Your task to perform on an android device: delete location history Image 0: 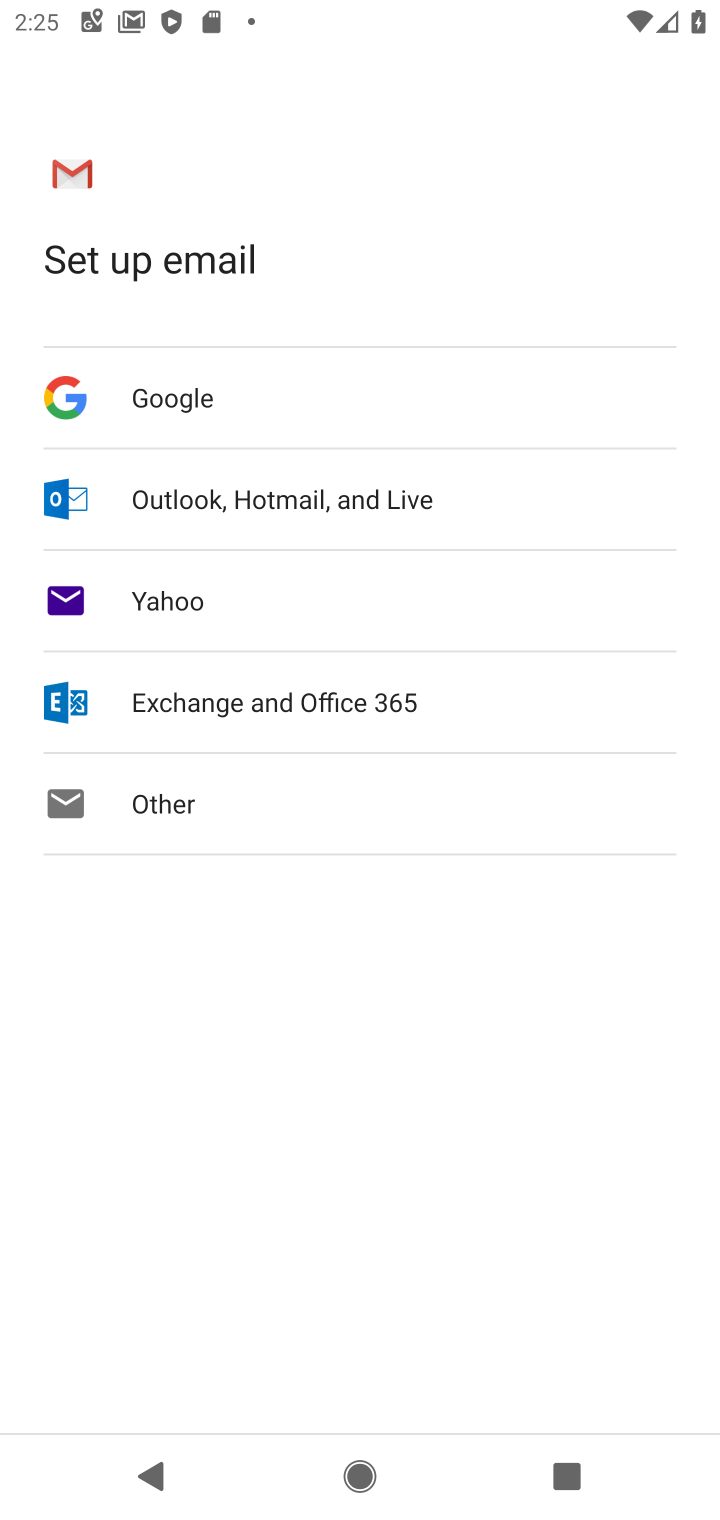
Step 0: press home button
Your task to perform on an android device: delete location history Image 1: 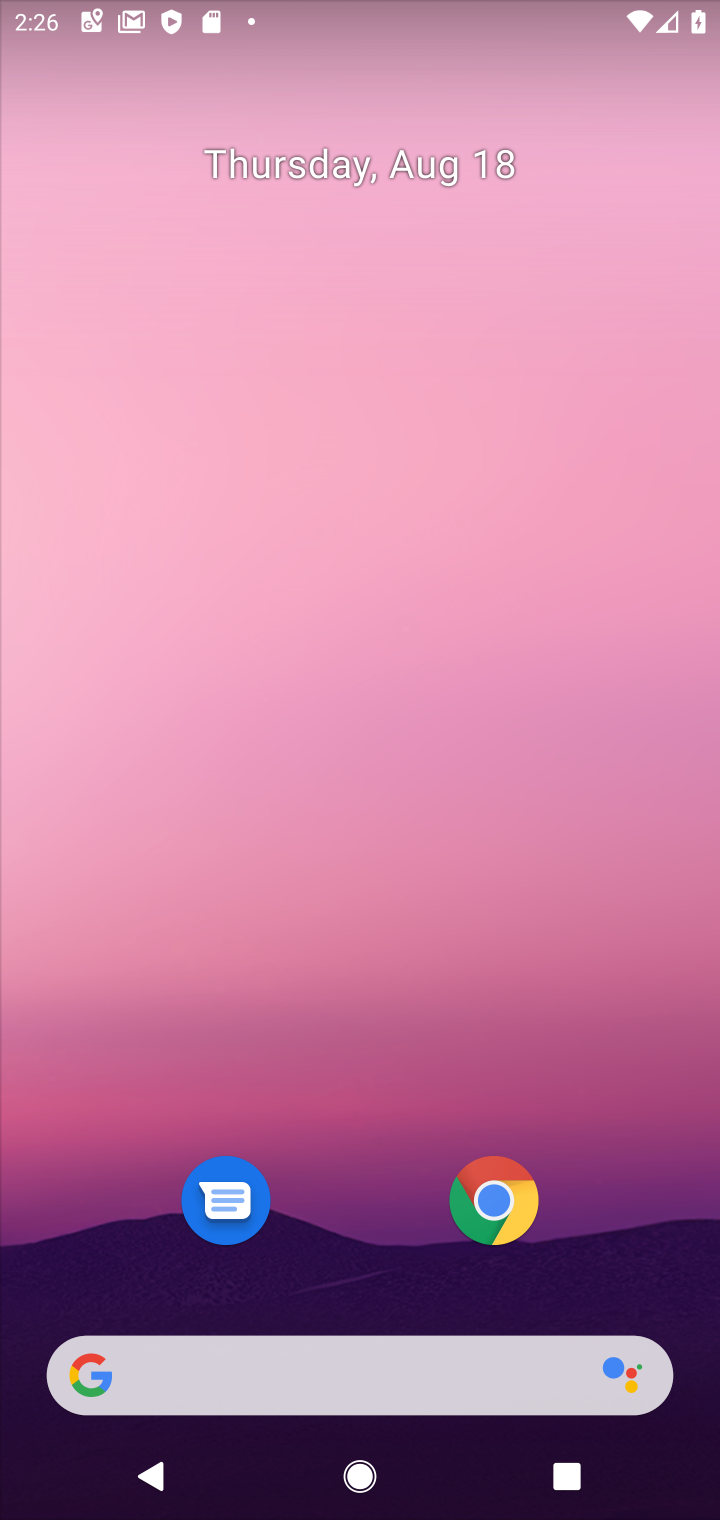
Step 1: drag from (424, 1180) to (518, 35)
Your task to perform on an android device: delete location history Image 2: 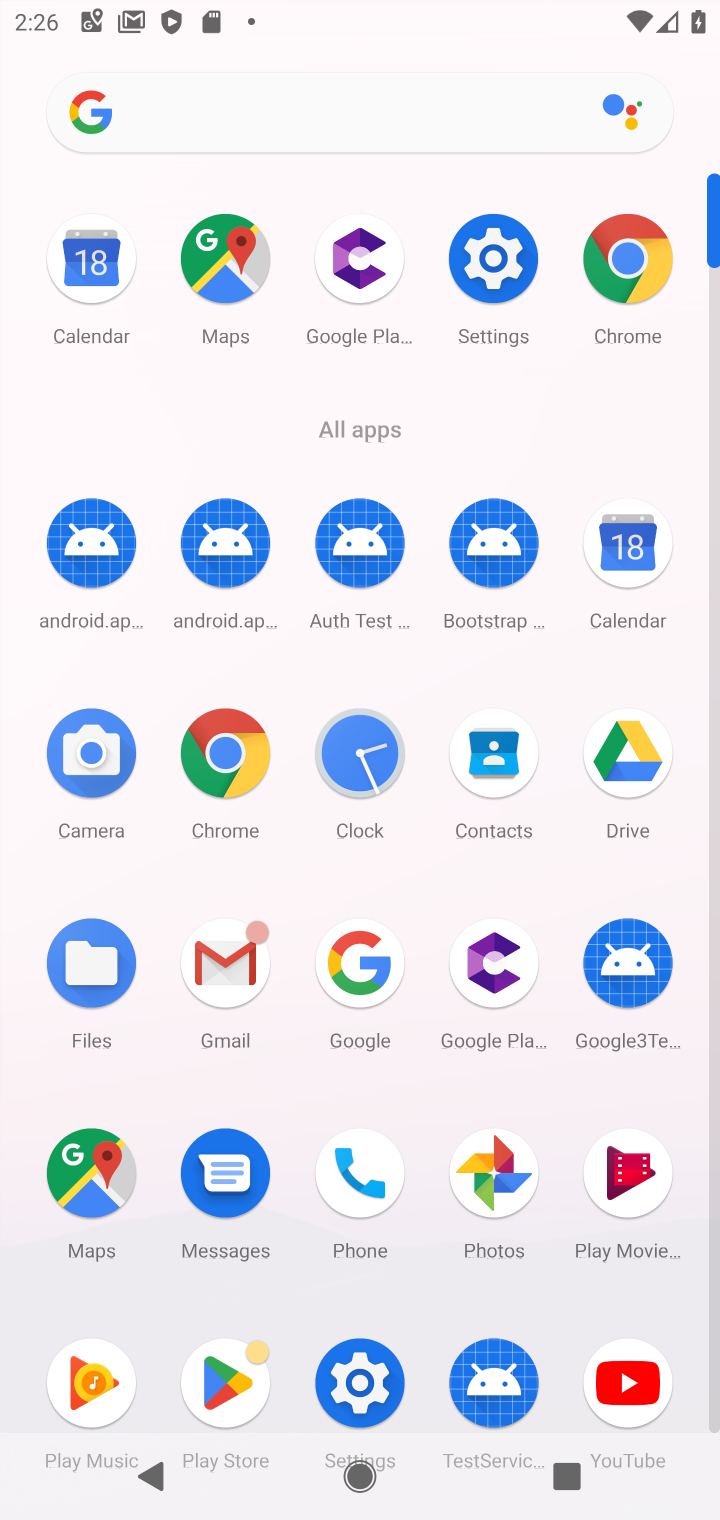
Step 2: click (92, 1178)
Your task to perform on an android device: delete location history Image 3: 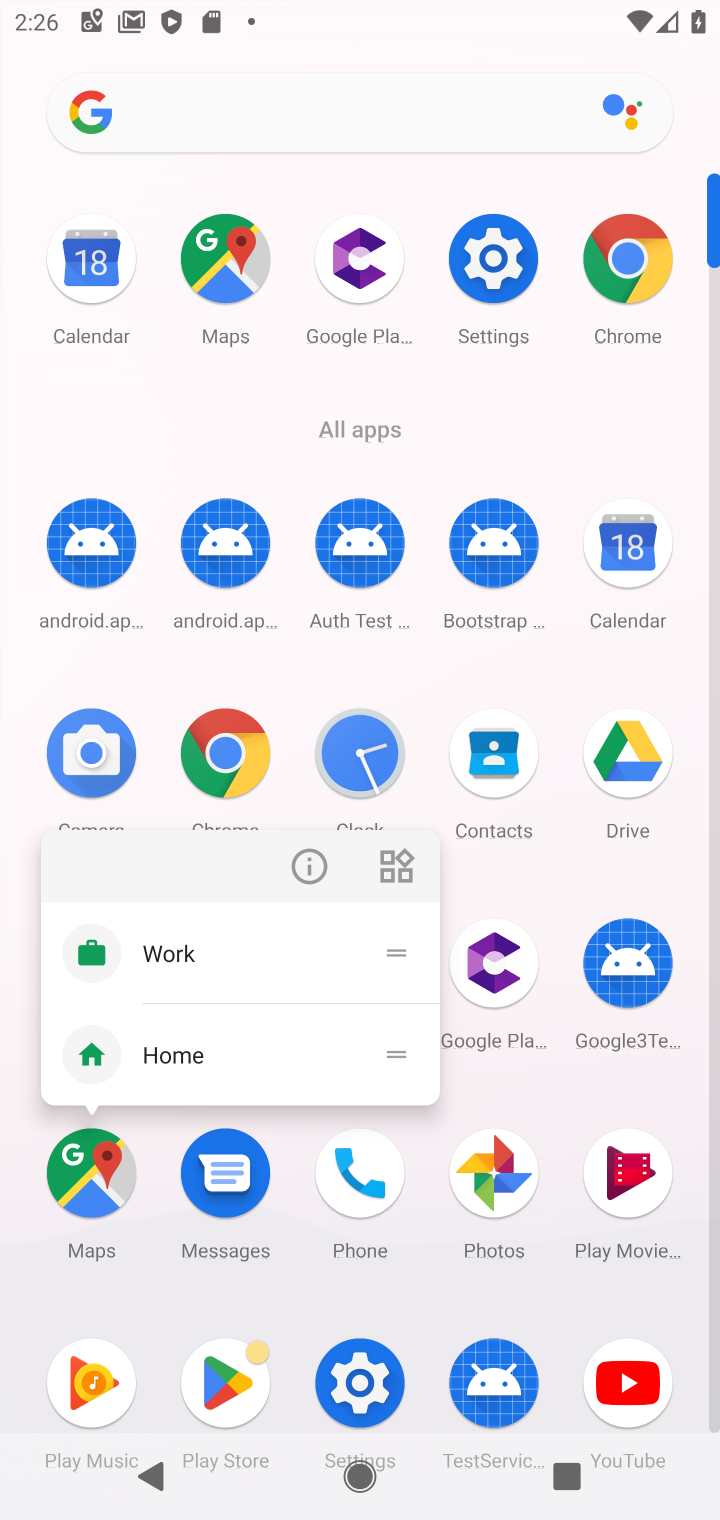
Step 3: click (92, 1178)
Your task to perform on an android device: delete location history Image 4: 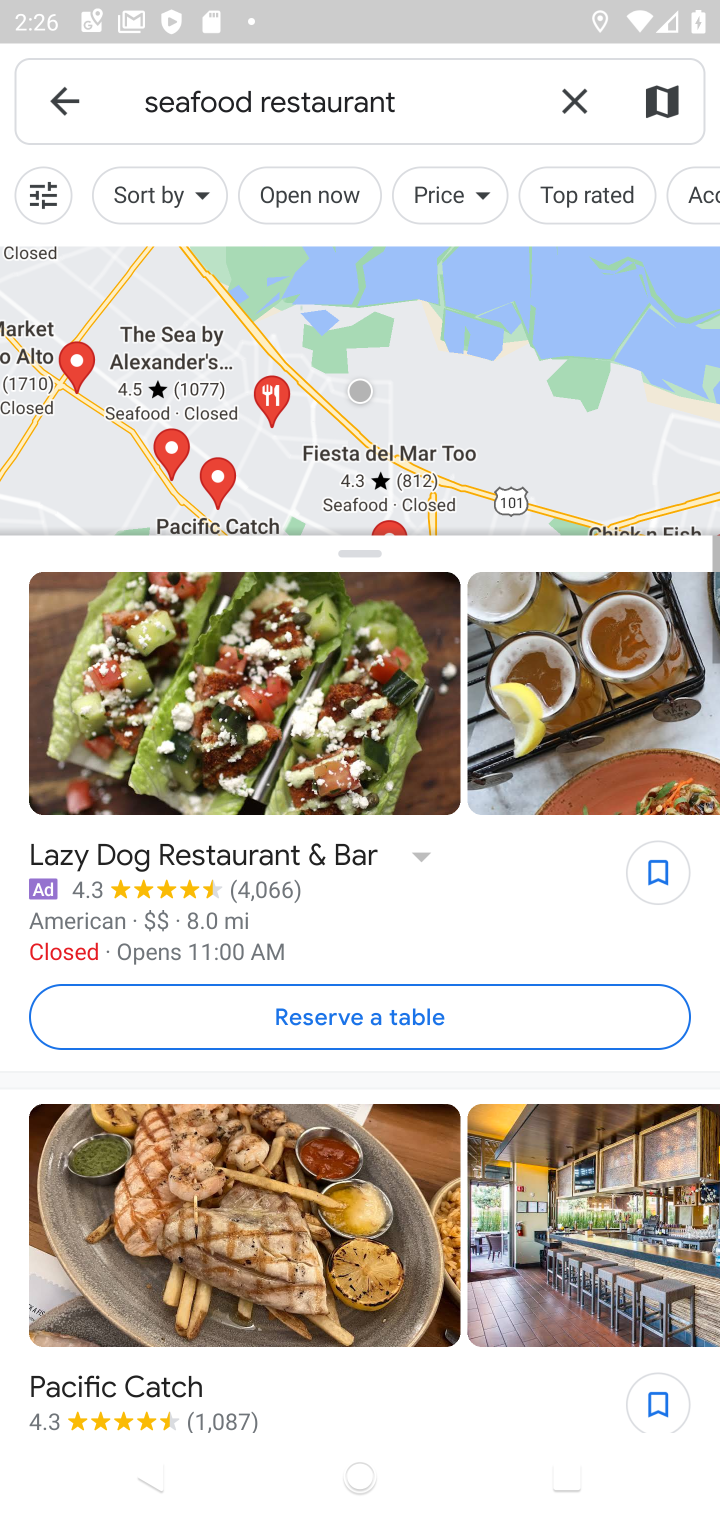
Step 4: click (596, 86)
Your task to perform on an android device: delete location history Image 5: 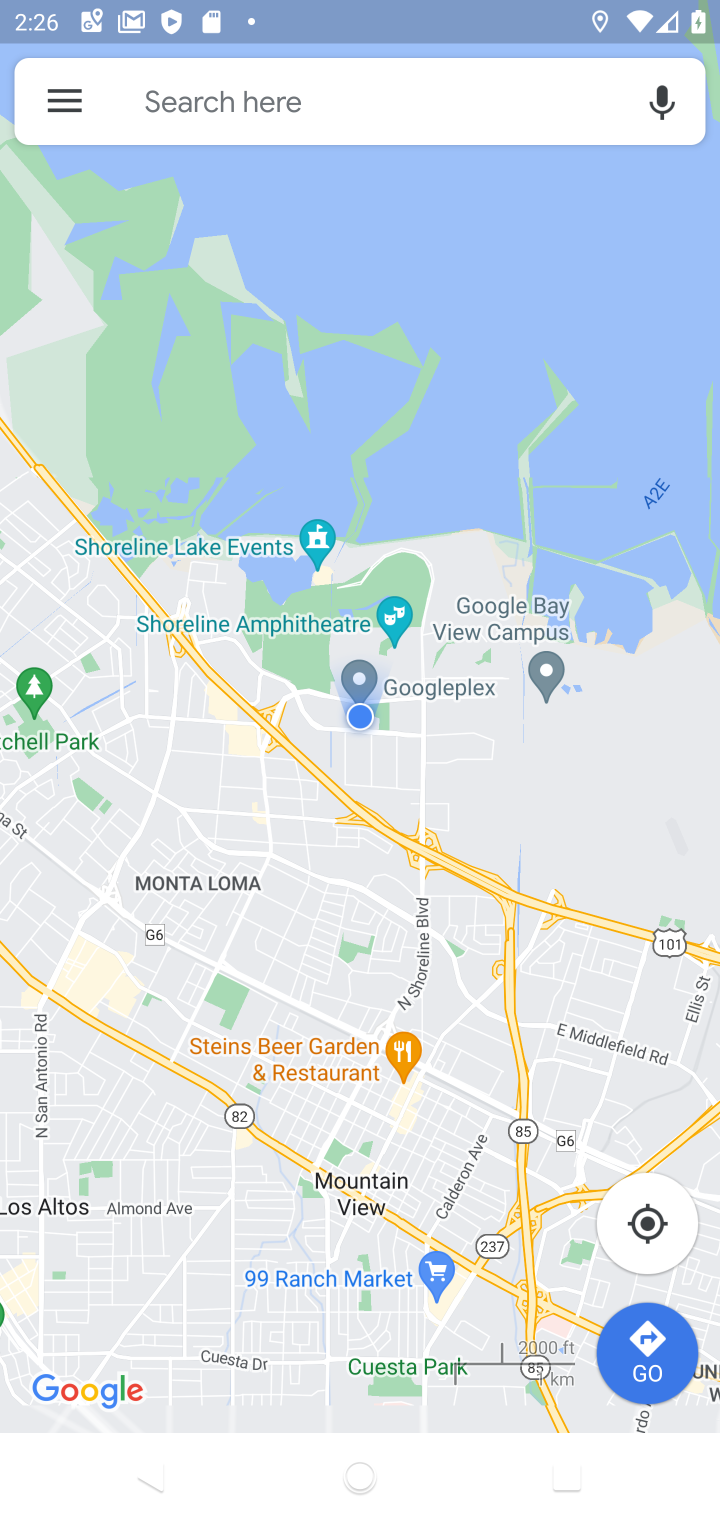
Step 5: click (75, 94)
Your task to perform on an android device: delete location history Image 6: 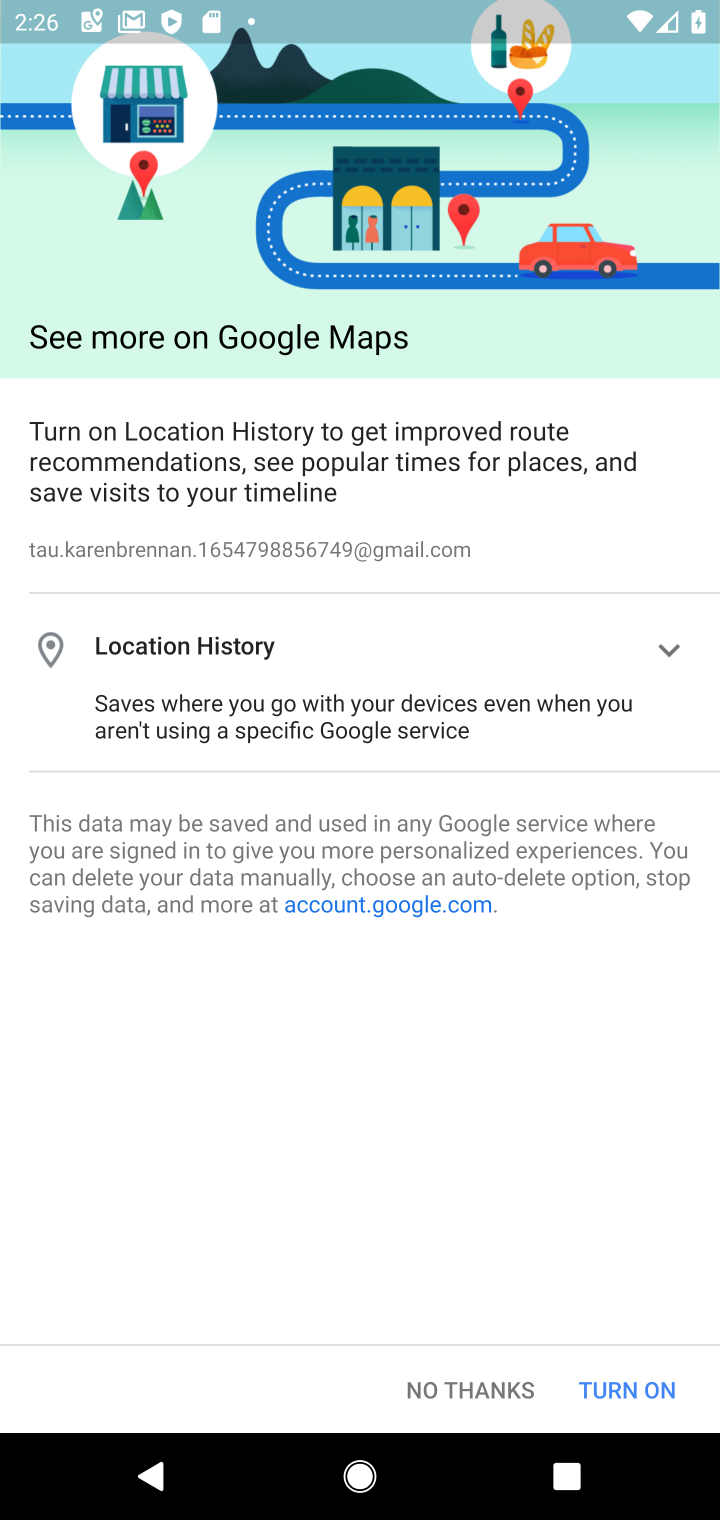
Step 6: click (644, 1364)
Your task to perform on an android device: delete location history Image 7: 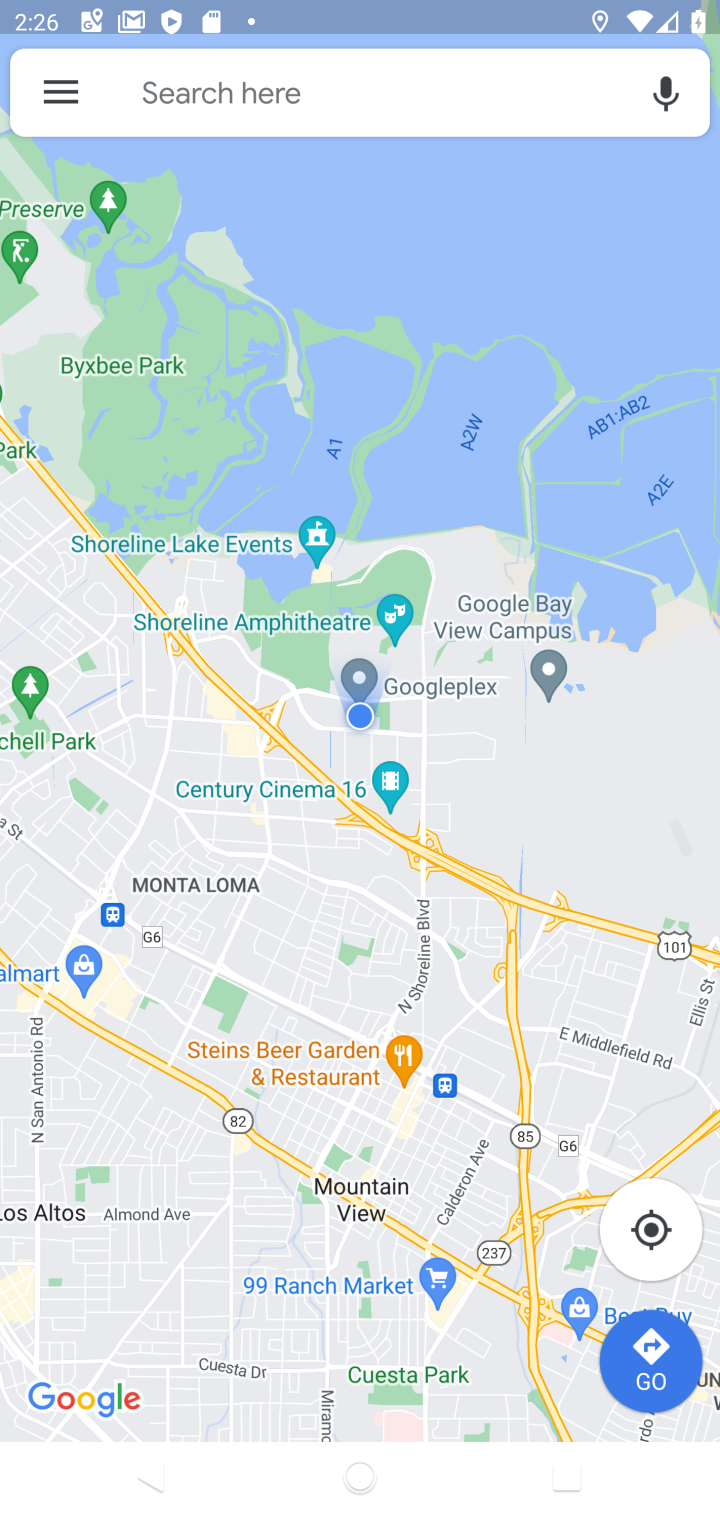
Step 7: click (644, 1364)
Your task to perform on an android device: delete location history Image 8: 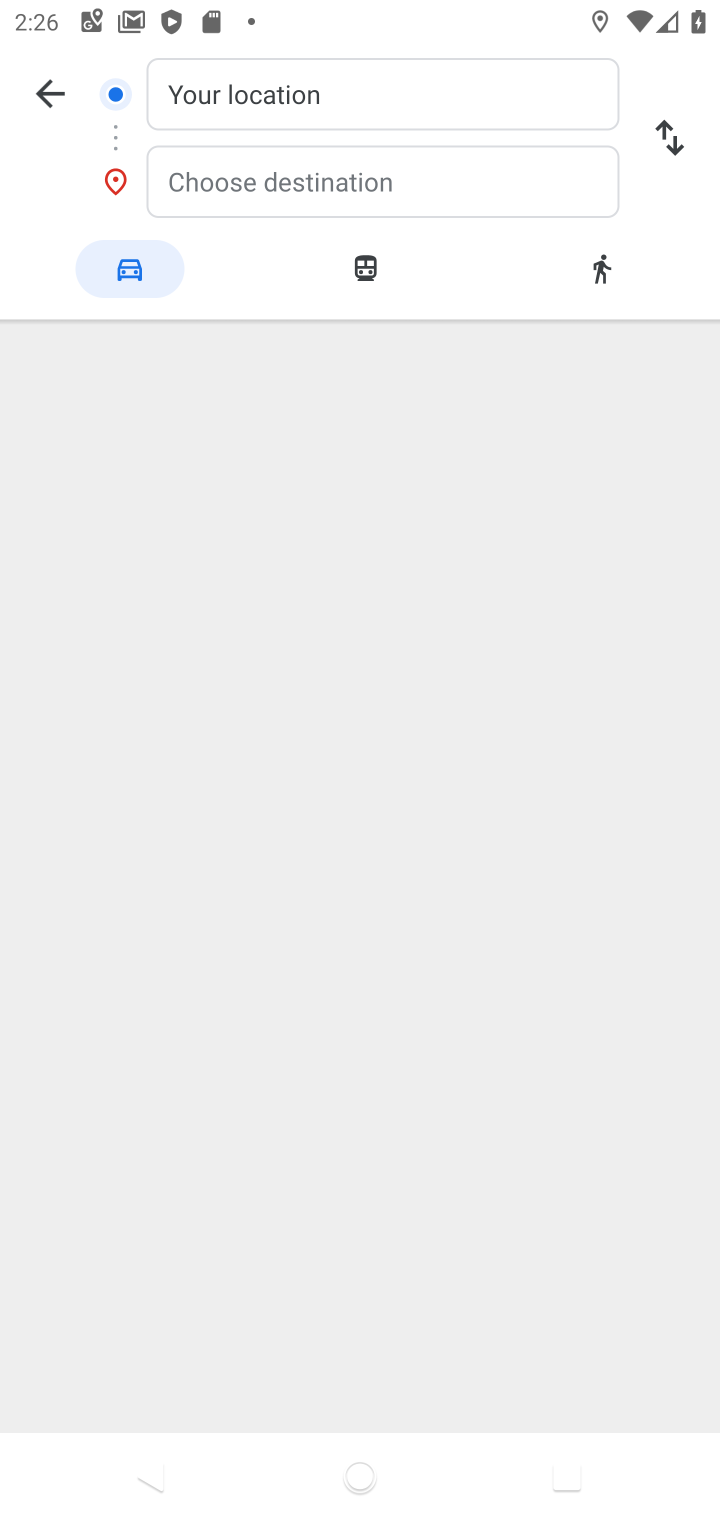
Step 8: click (58, 86)
Your task to perform on an android device: delete location history Image 9: 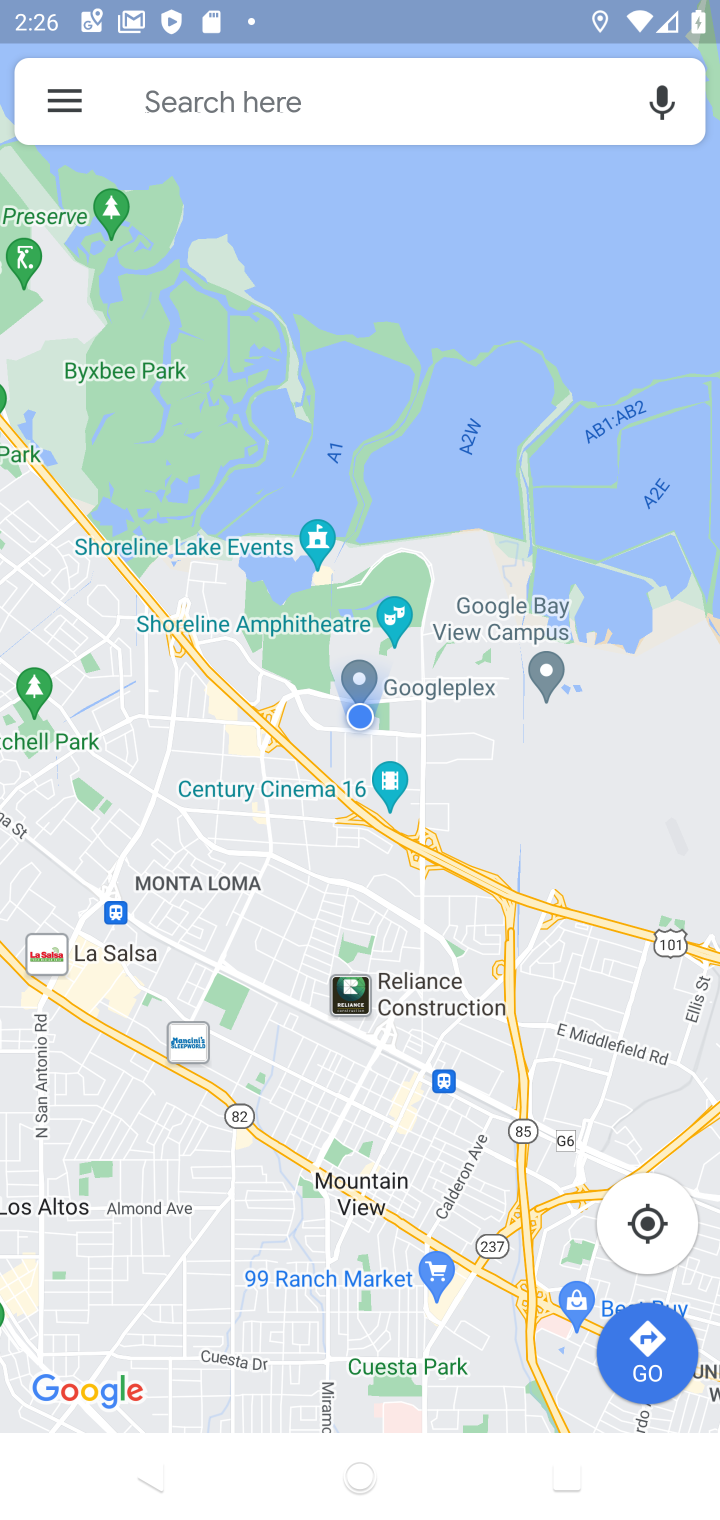
Step 9: click (70, 104)
Your task to perform on an android device: delete location history Image 10: 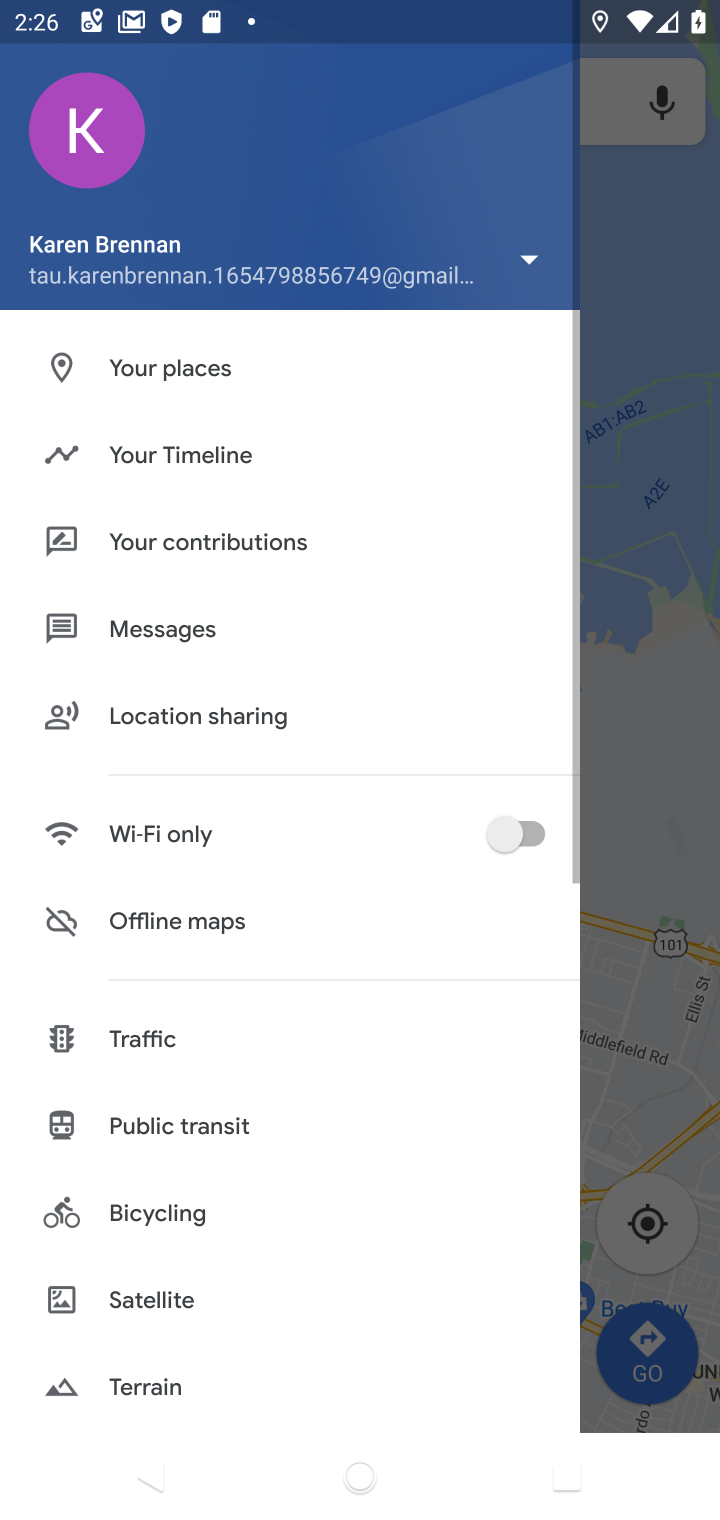
Step 10: click (133, 436)
Your task to perform on an android device: delete location history Image 11: 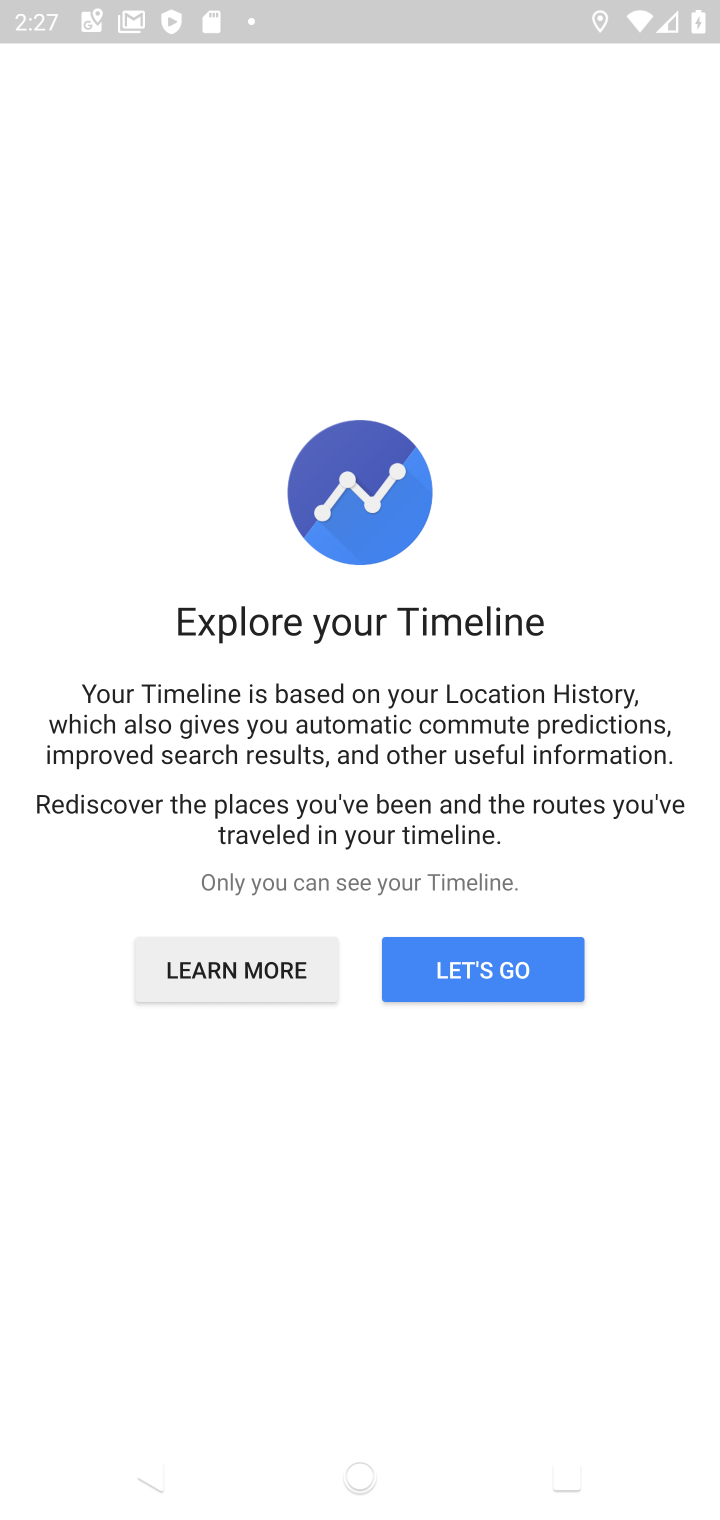
Step 11: click (527, 965)
Your task to perform on an android device: delete location history Image 12: 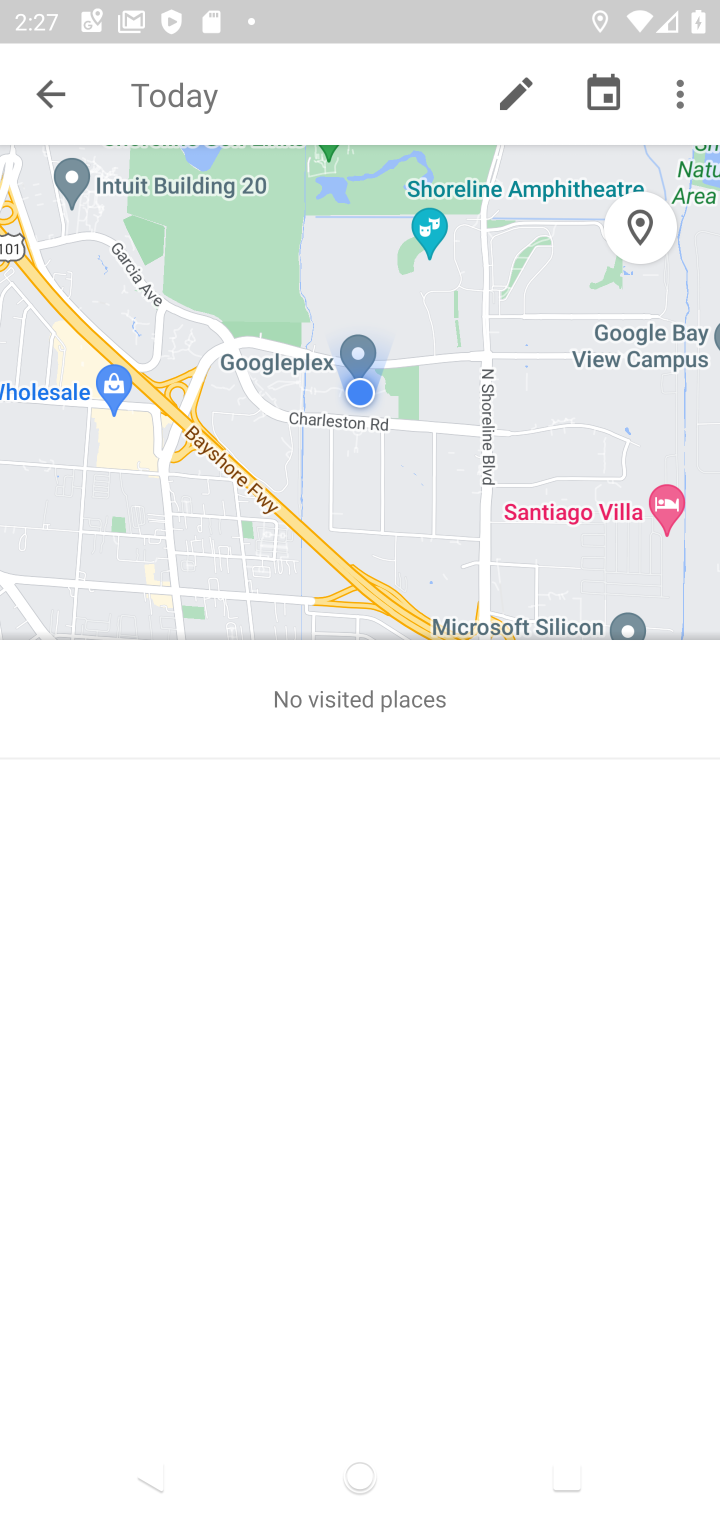
Step 12: click (676, 78)
Your task to perform on an android device: delete location history Image 13: 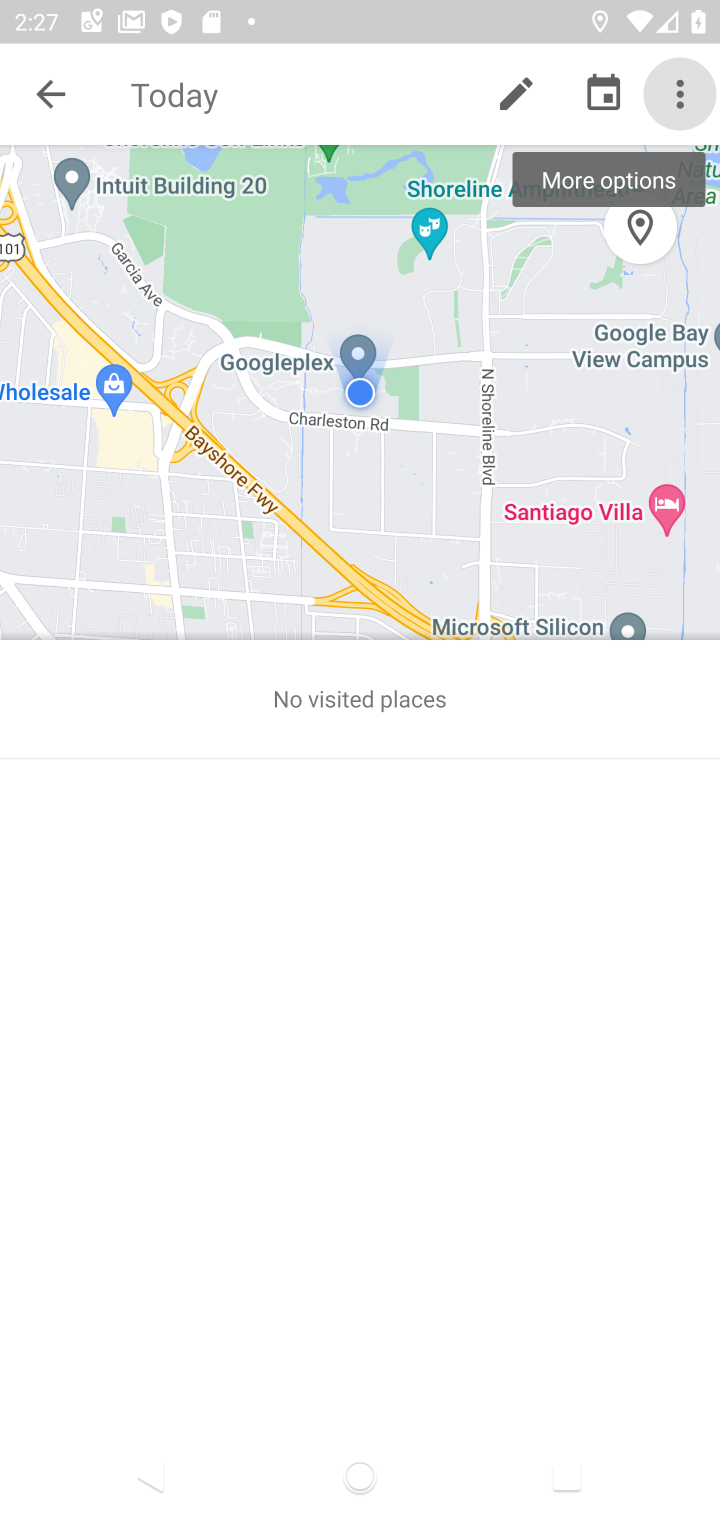
Step 13: click (676, 78)
Your task to perform on an android device: delete location history Image 14: 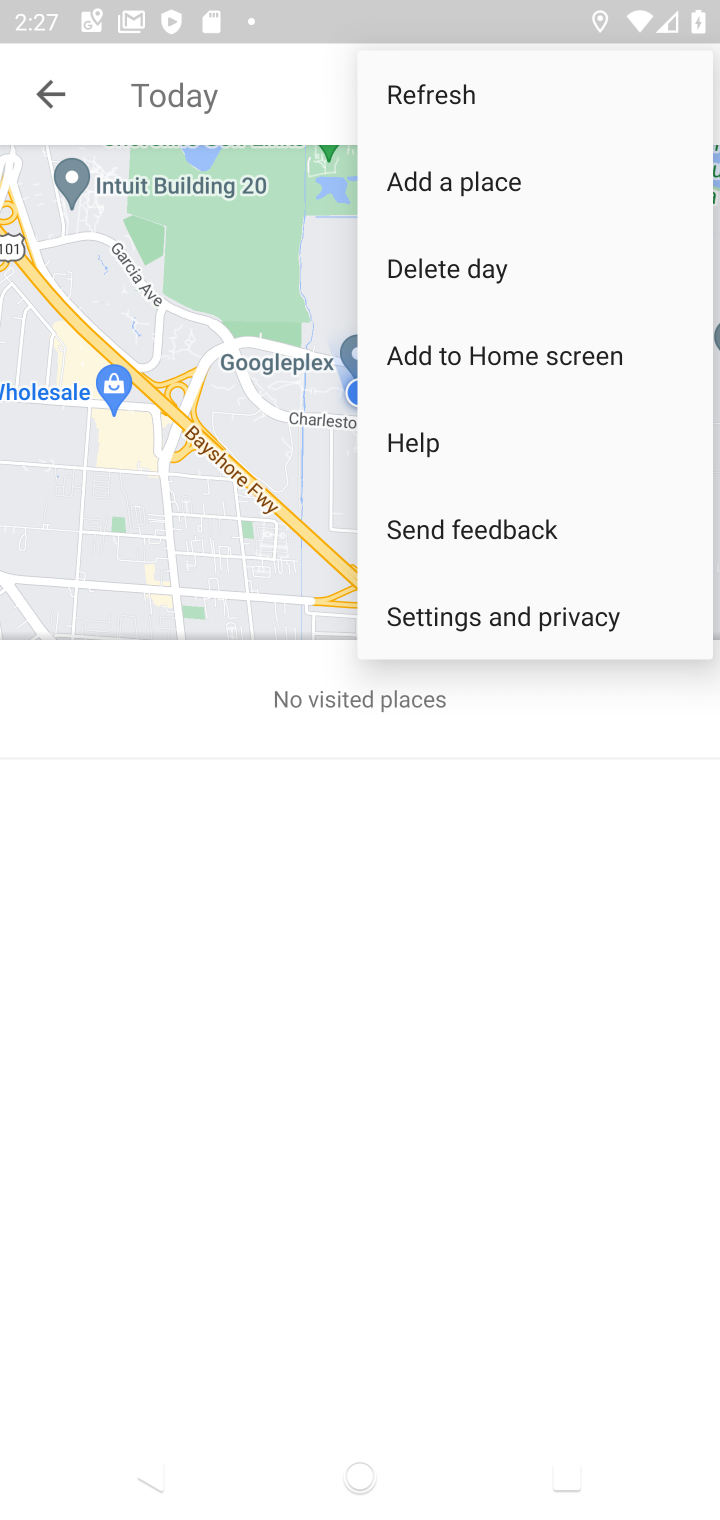
Step 14: click (454, 617)
Your task to perform on an android device: delete location history Image 15: 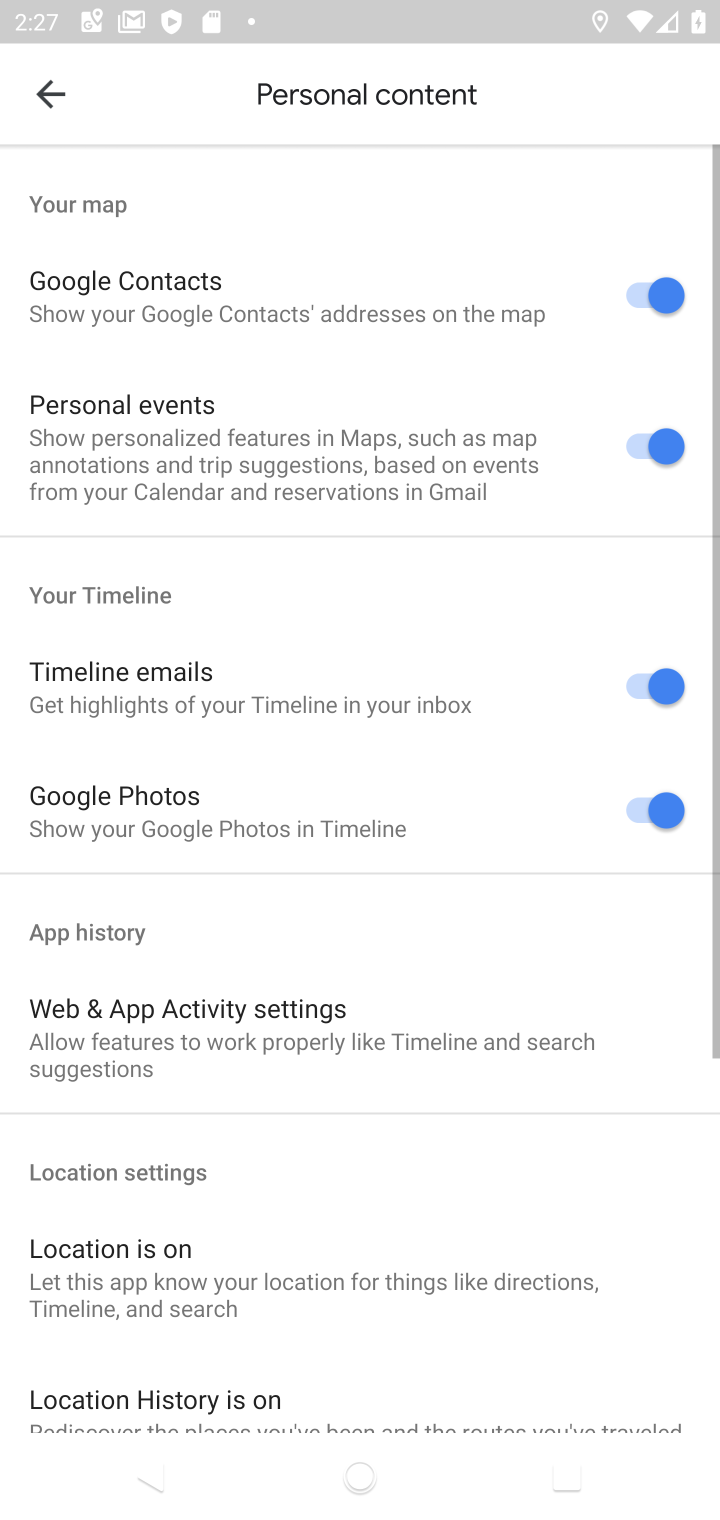
Step 15: drag from (367, 1031) to (265, 206)
Your task to perform on an android device: delete location history Image 16: 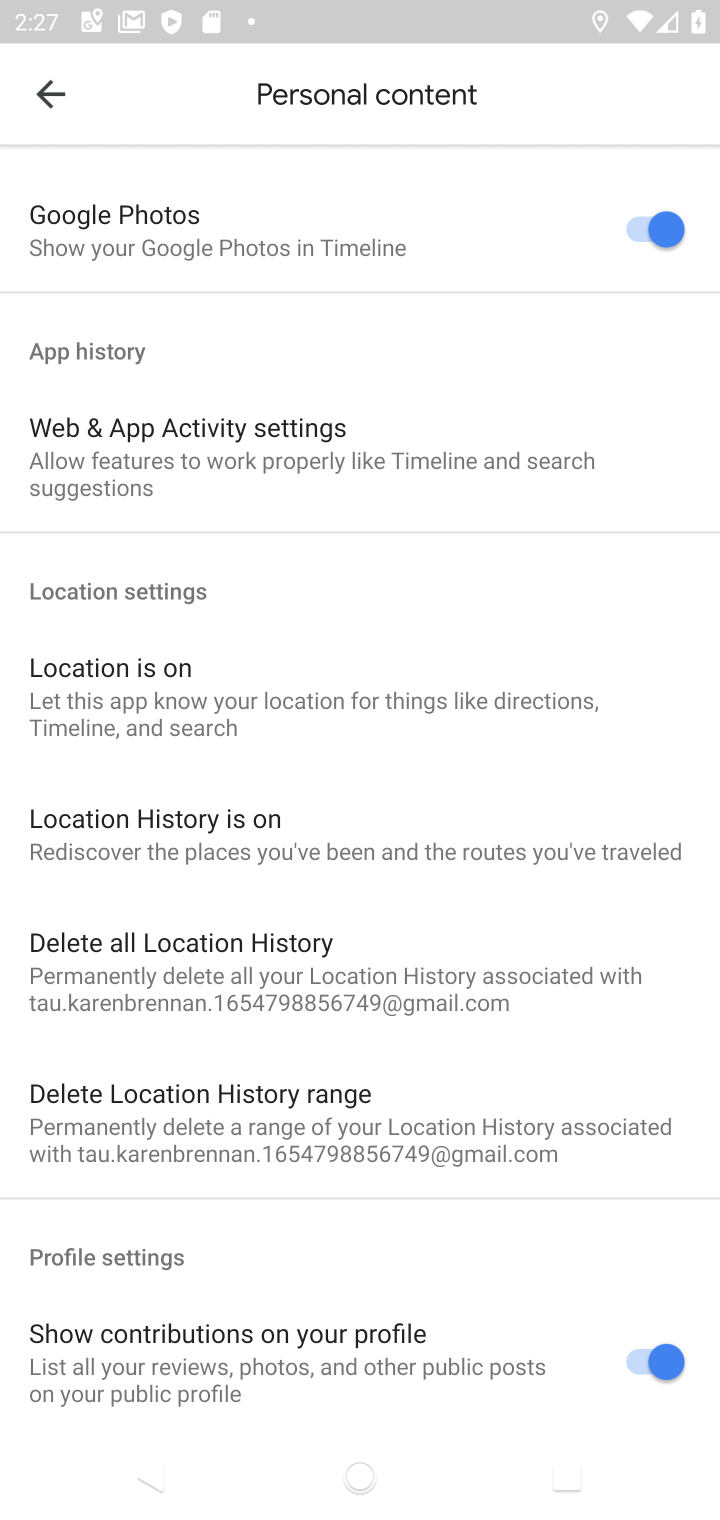
Step 16: click (198, 822)
Your task to perform on an android device: delete location history Image 17: 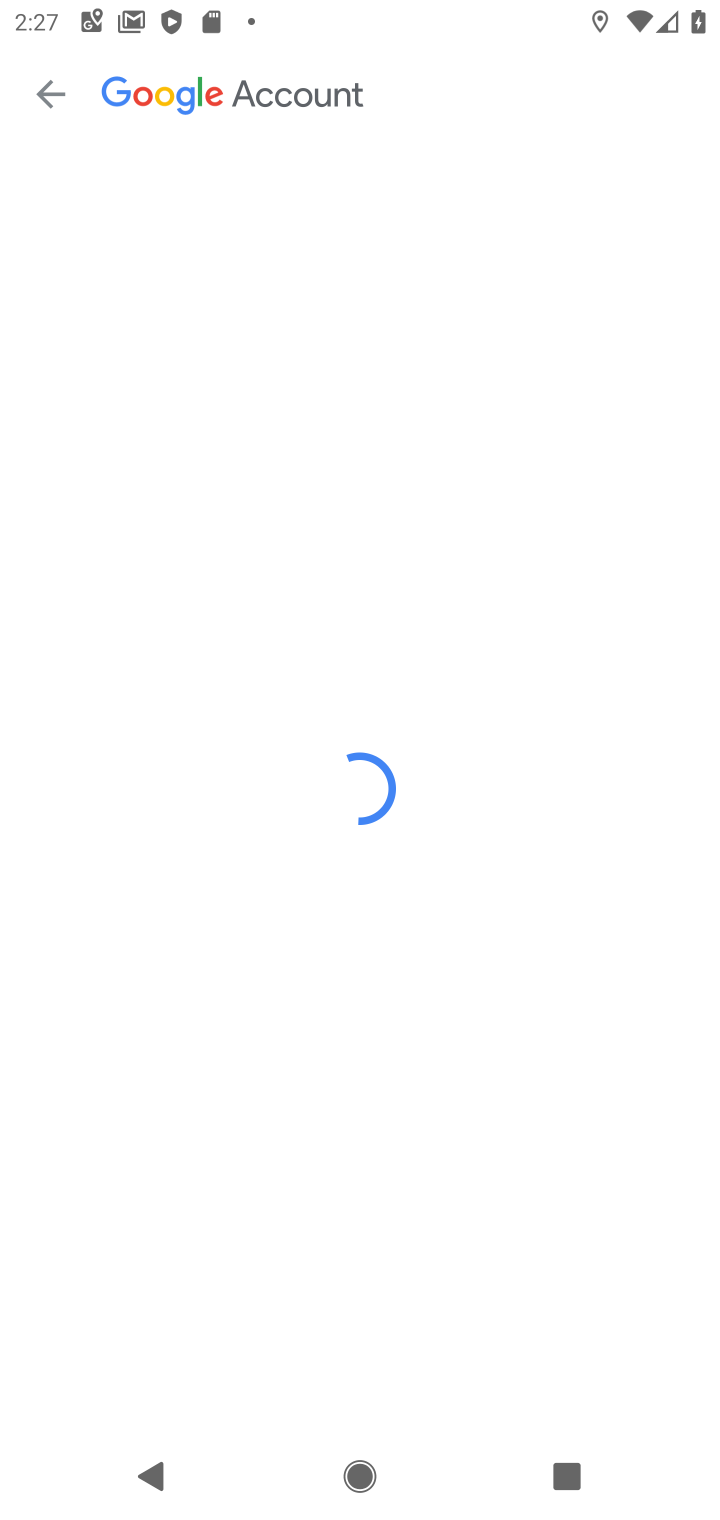
Step 17: press back button
Your task to perform on an android device: delete location history Image 18: 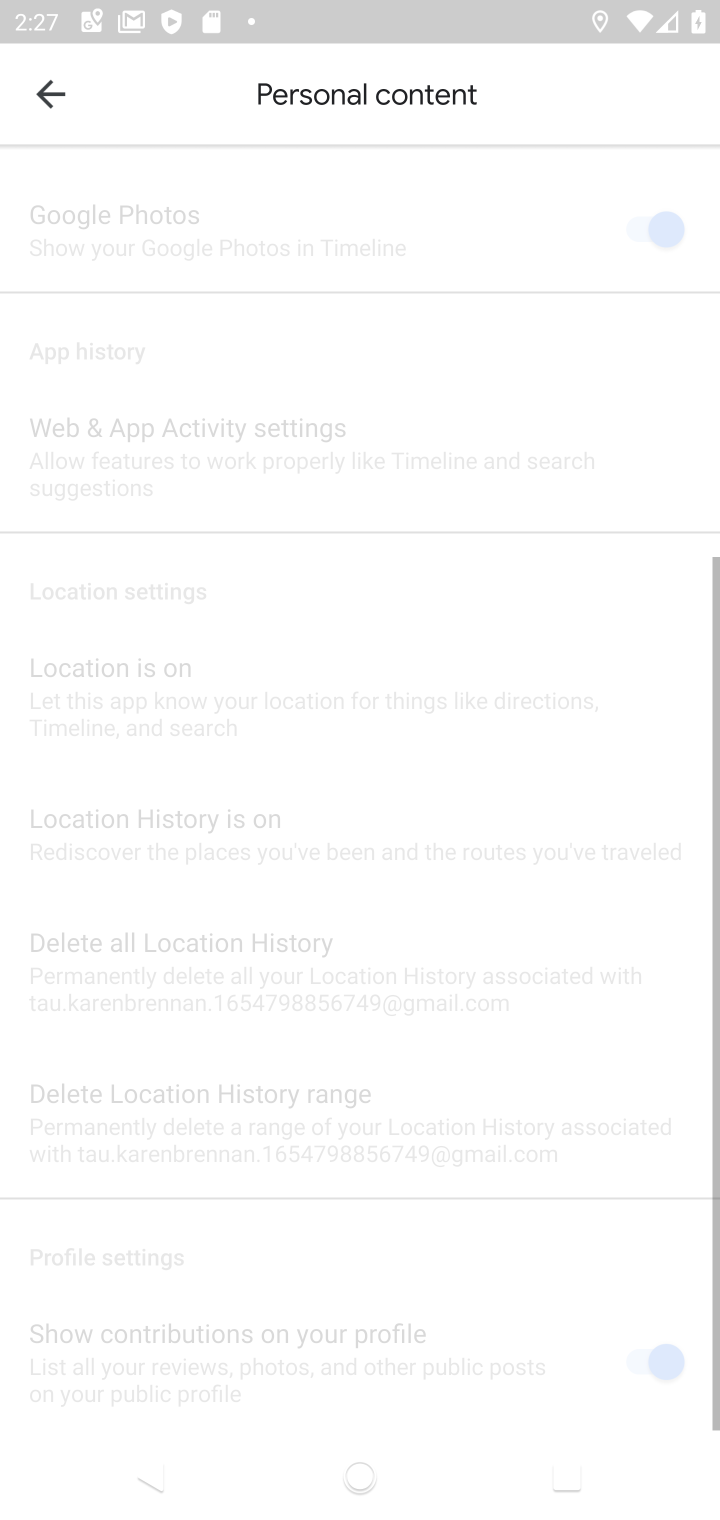
Step 18: click (148, 956)
Your task to perform on an android device: delete location history Image 19: 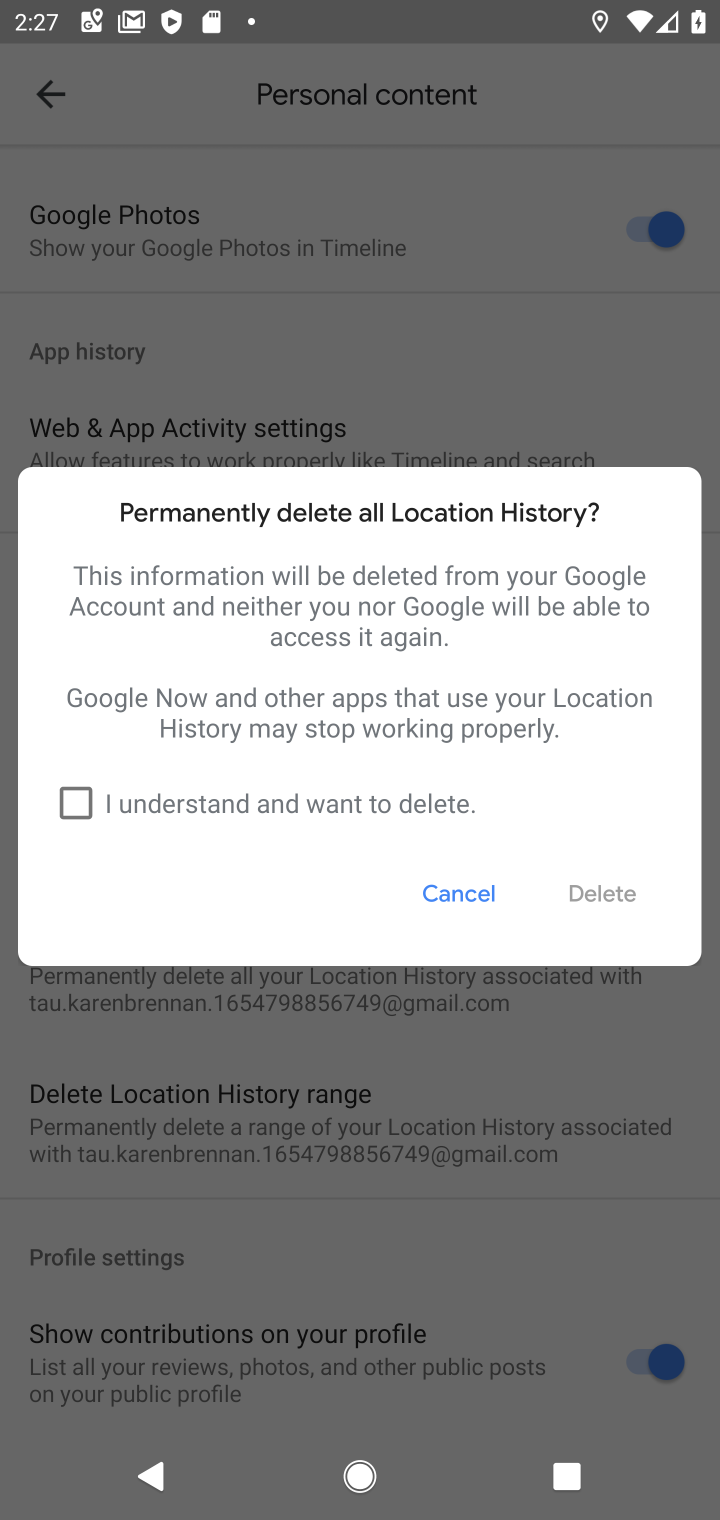
Step 19: click (83, 795)
Your task to perform on an android device: delete location history Image 20: 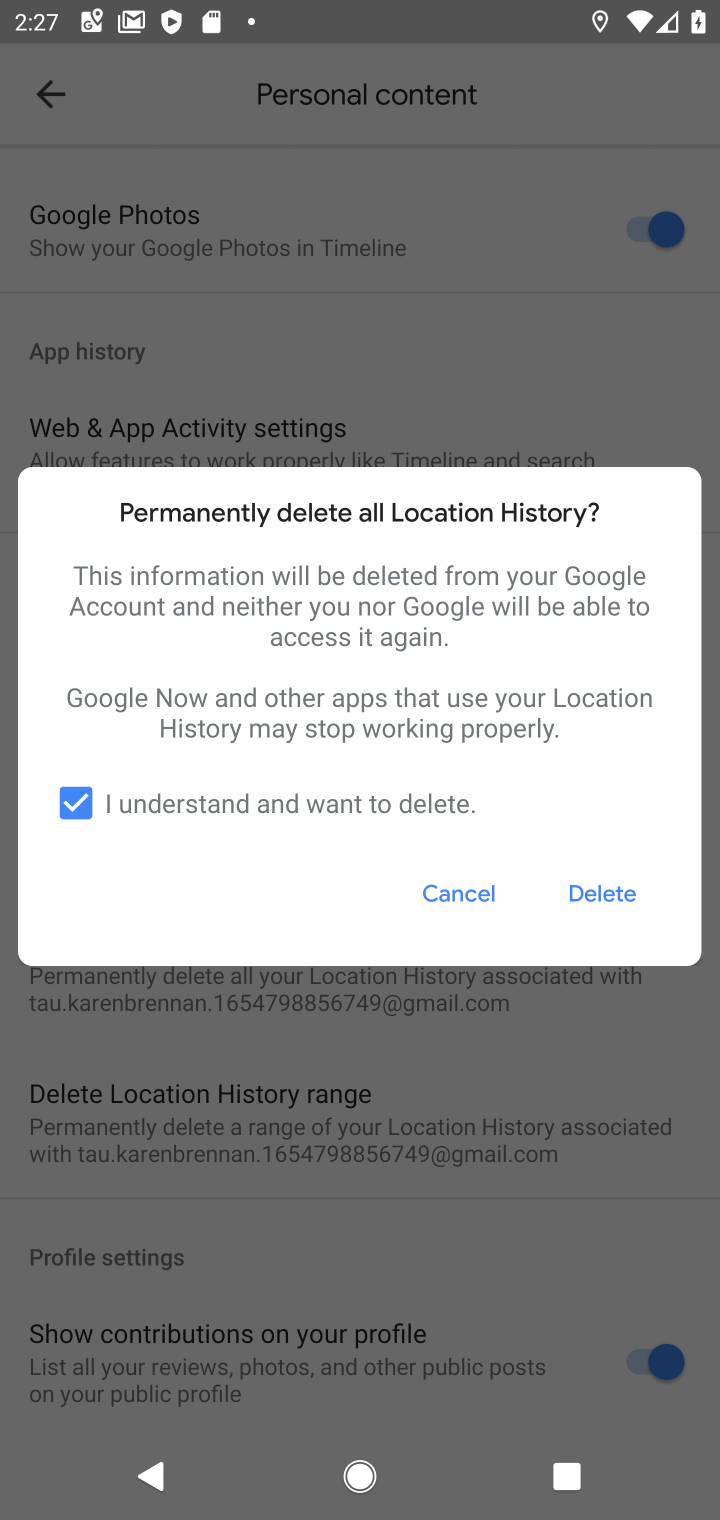
Step 20: click (617, 901)
Your task to perform on an android device: delete location history Image 21: 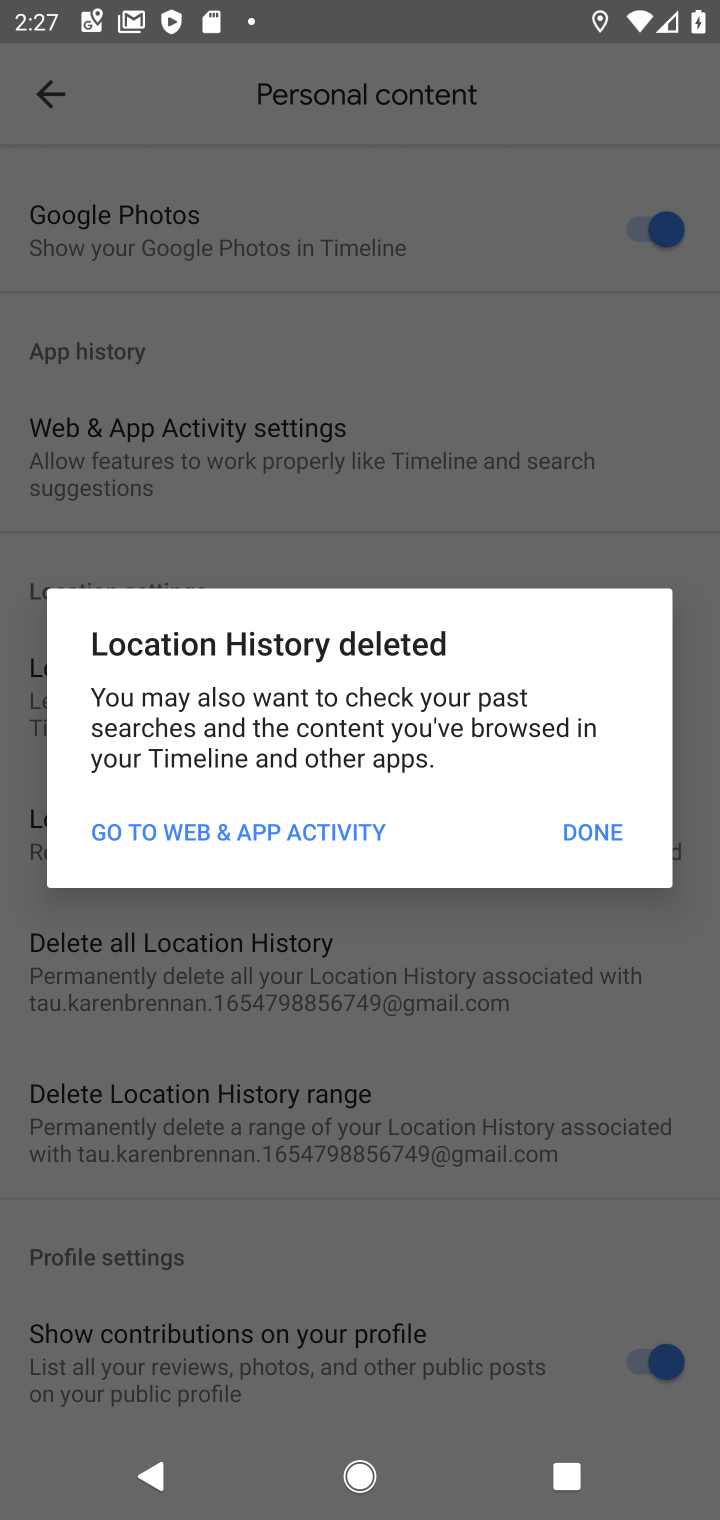
Step 21: click (595, 830)
Your task to perform on an android device: delete location history Image 22: 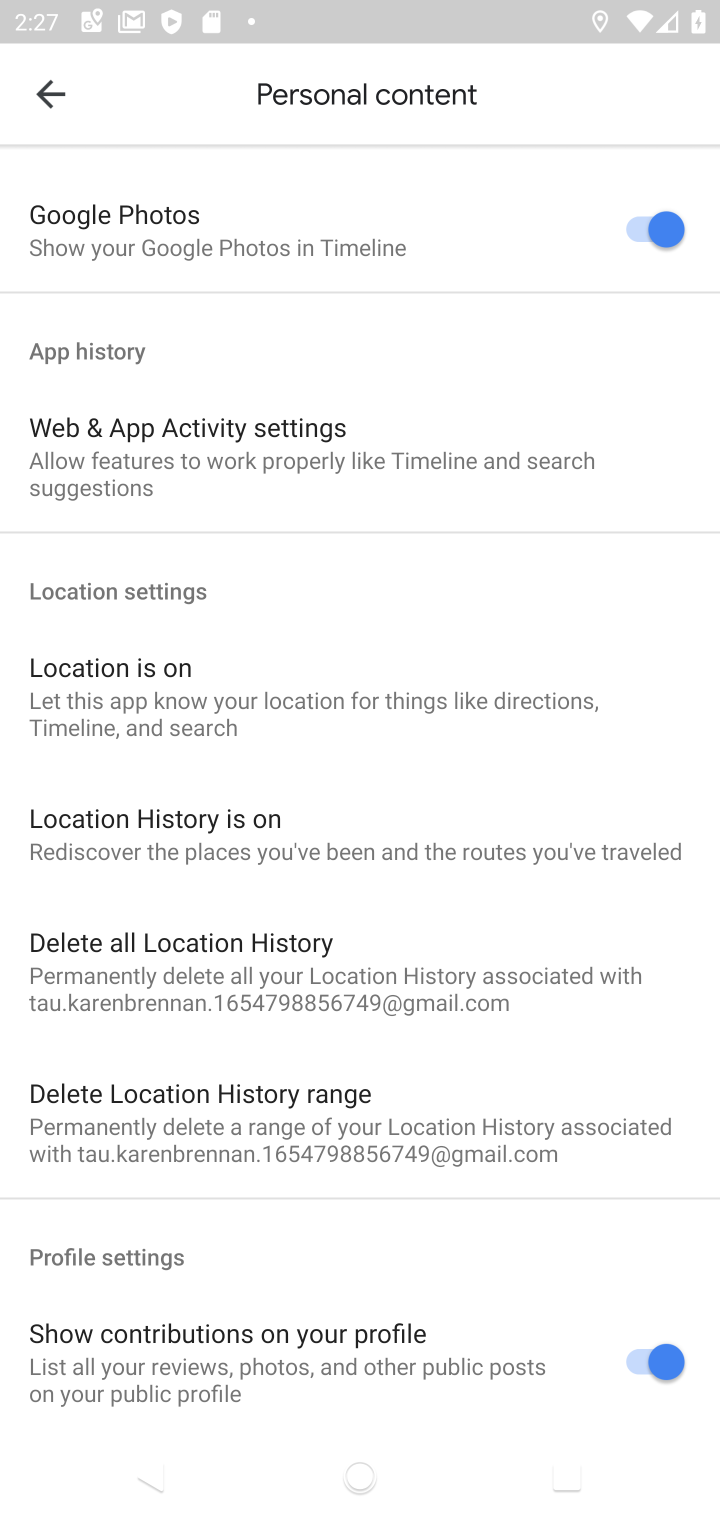
Step 22: task complete